Your task to perform on an android device: search for starred emails in the gmail app Image 0: 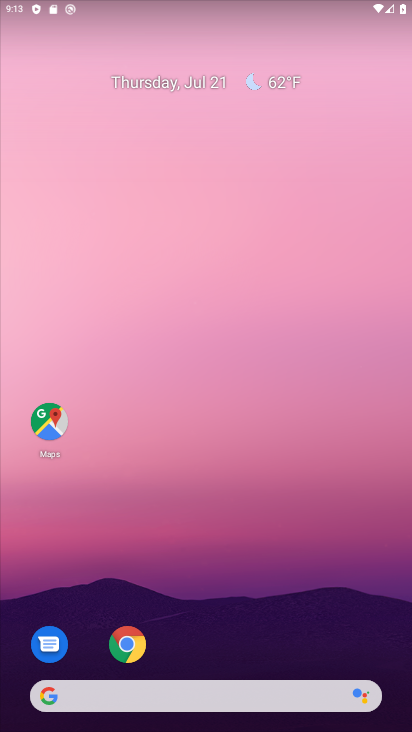
Step 0: drag from (273, 547) to (252, 2)
Your task to perform on an android device: search for starred emails in the gmail app Image 1: 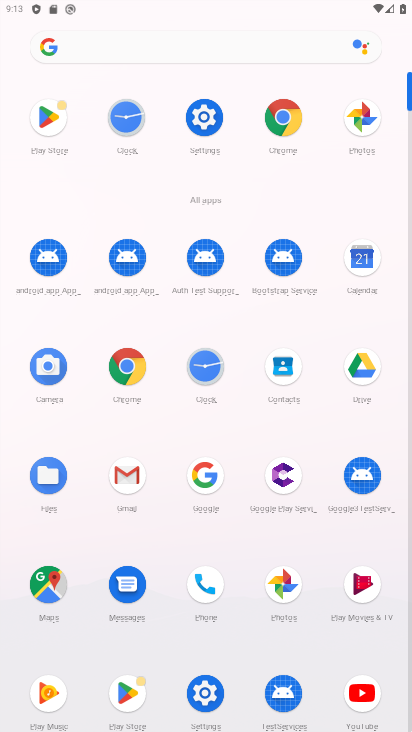
Step 1: click (131, 476)
Your task to perform on an android device: search for starred emails in the gmail app Image 2: 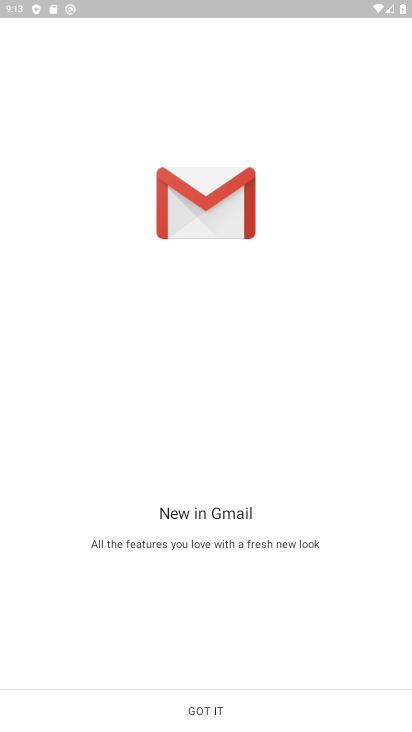
Step 2: click (217, 707)
Your task to perform on an android device: search for starred emails in the gmail app Image 3: 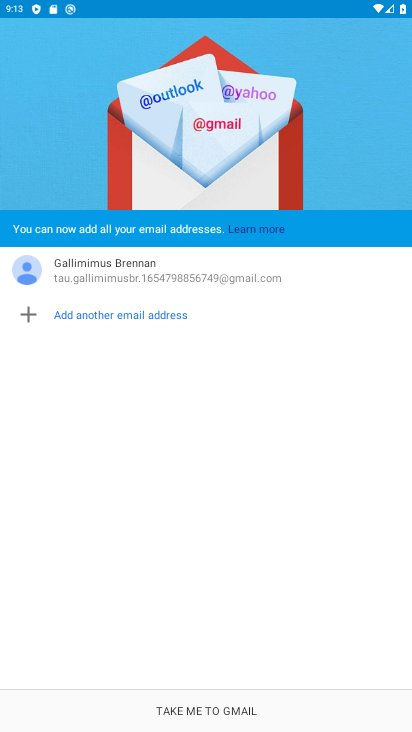
Step 3: click (217, 707)
Your task to perform on an android device: search for starred emails in the gmail app Image 4: 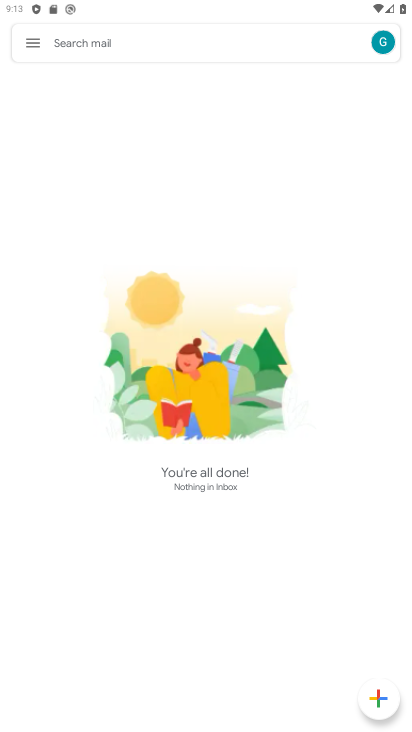
Step 4: click (41, 40)
Your task to perform on an android device: search for starred emails in the gmail app Image 5: 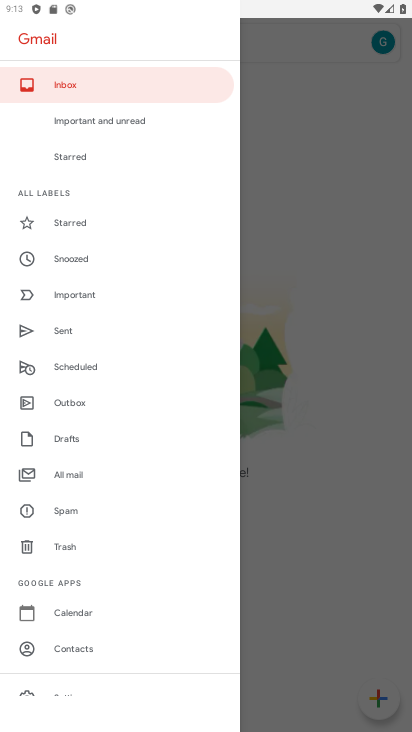
Step 5: click (81, 160)
Your task to perform on an android device: search for starred emails in the gmail app Image 6: 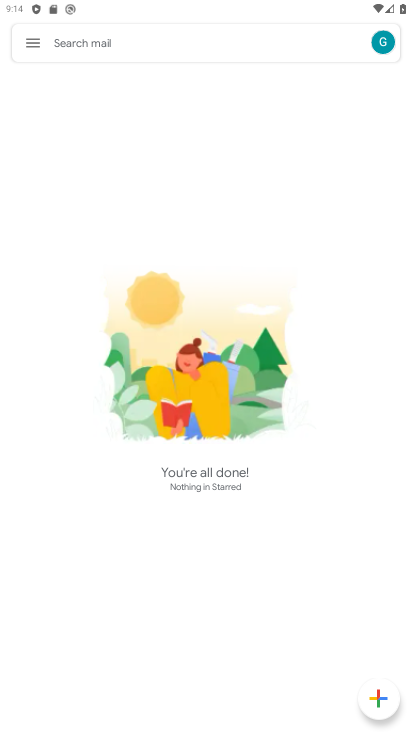
Step 6: click (33, 32)
Your task to perform on an android device: search for starred emails in the gmail app Image 7: 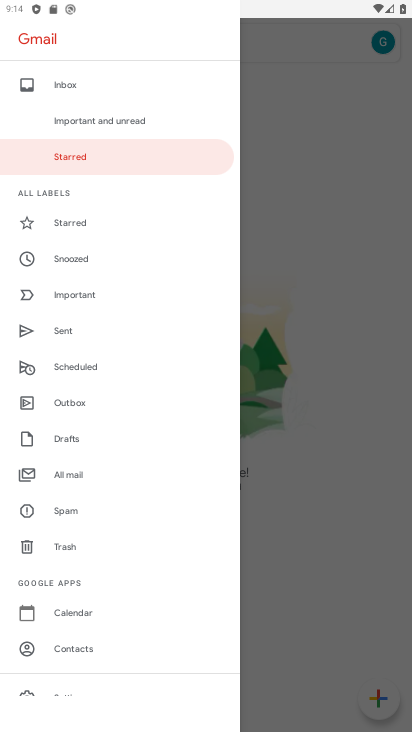
Step 7: task complete